Your task to perform on an android device: see creations saved in the google photos Image 0: 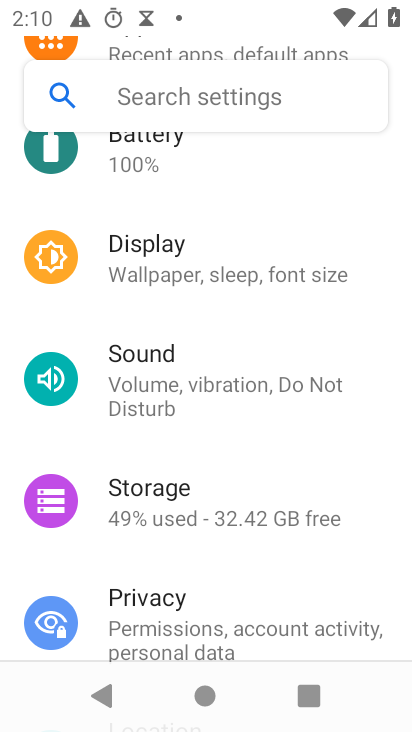
Step 0: press home button
Your task to perform on an android device: see creations saved in the google photos Image 1: 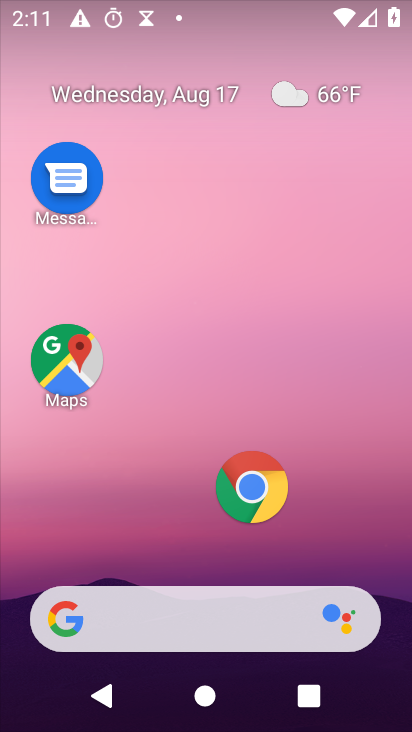
Step 1: drag from (186, 525) to (232, 0)
Your task to perform on an android device: see creations saved in the google photos Image 2: 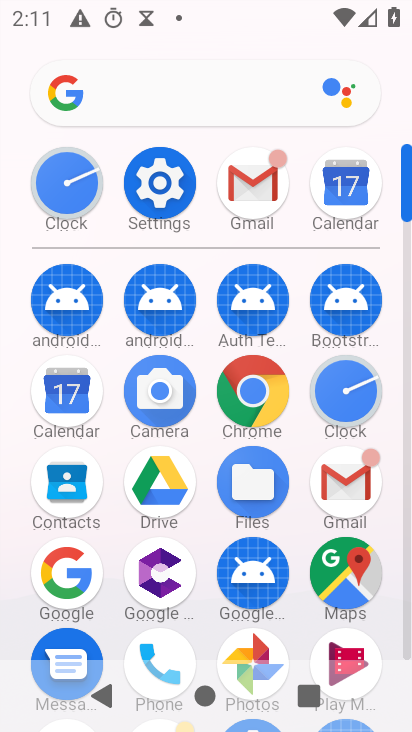
Step 2: drag from (392, 559) to (352, 40)
Your task to perform on an android device: see creations saved in the google photos Image 3: 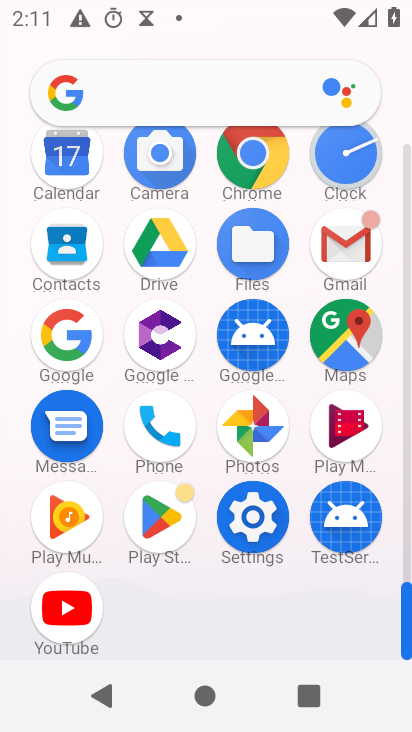
Step 3: click (251, 440)
Your task to perform on an android device: see creations saved in the google photos Image 4: 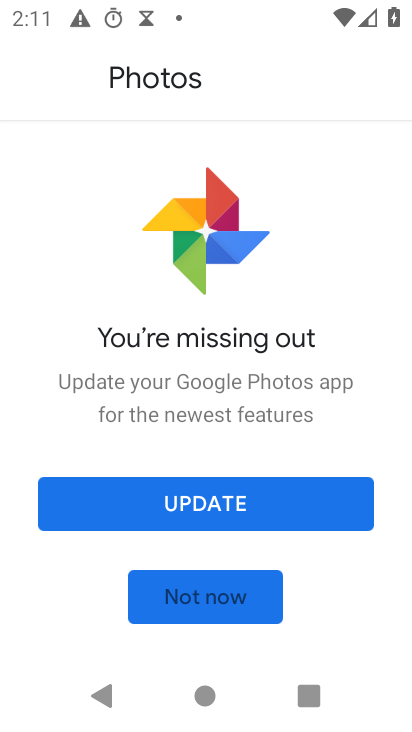
Step 4: click (203, 497)
Your task to perform on an android device: see creations saved in the google photos Image 5: 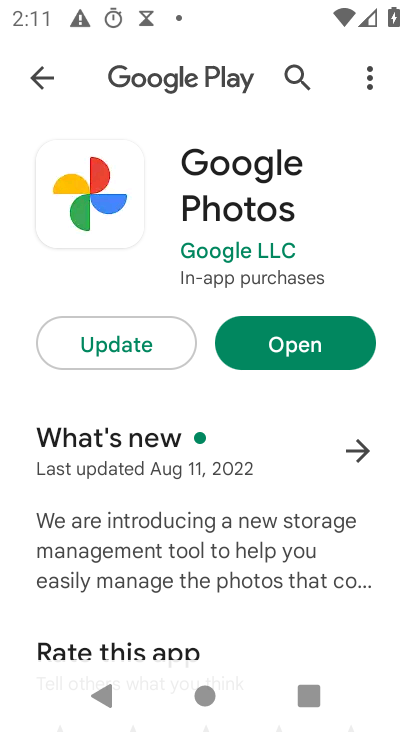
Step 5: click (145, 332)
Your task to perform on an android device: see creations saved in the google photos Image 6: 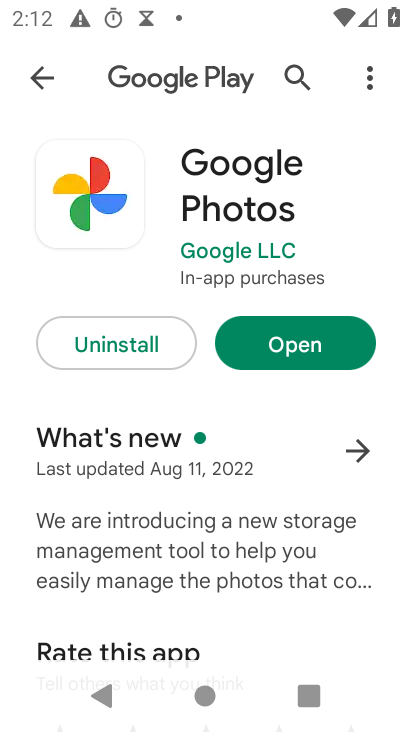
Step 6: click (256, 320)
Your task to perform on an android device: see creations saved in the google photos Image 7: 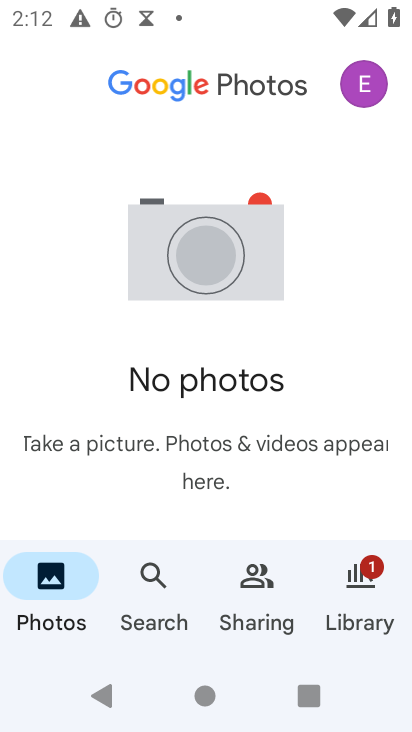
Step 7: click (149, 578)
Your task to perform on an android device: see creations saved in the google photos Image 8: 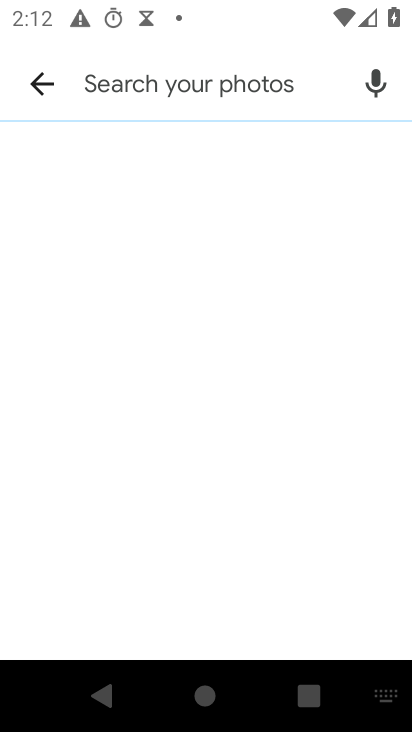
Step 8: click (209, 89)
Your task to perform on an android device: see creations saved in the google photos Image 9: 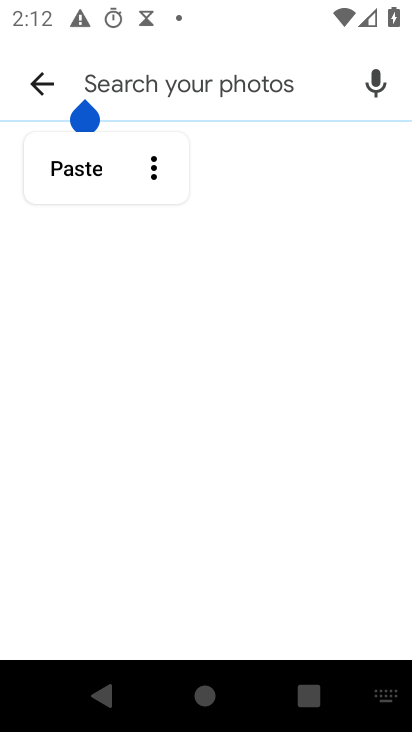
Step 9: click (234, 79)
Your task to perform on an android device: see creations saved in the google photos Image 10: 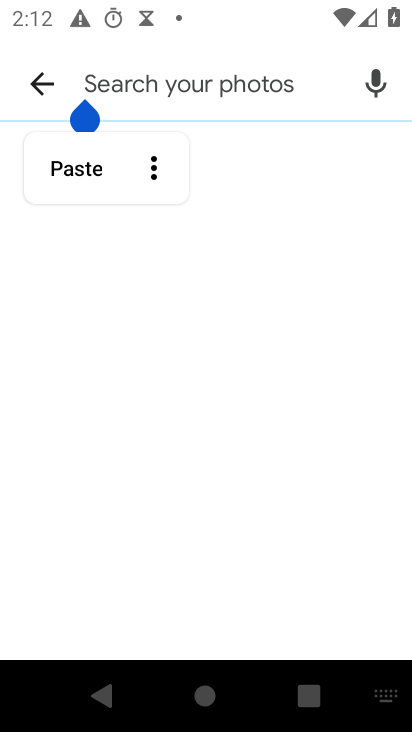
Step 10: click (234, 79)
Your task to perform on an android device: see creations saved in the google photos Image 11: 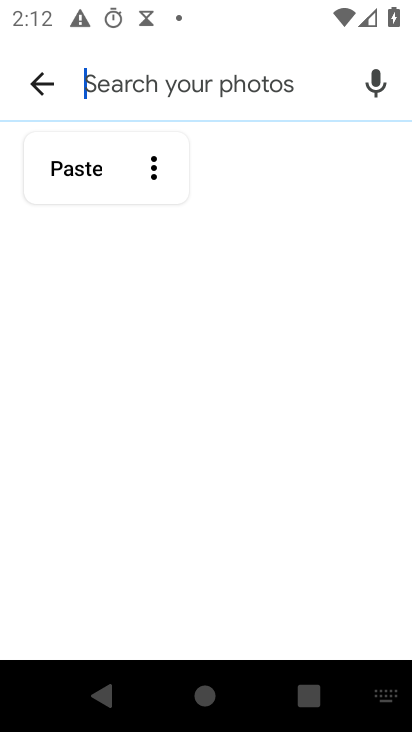
Step 11: click (234, 79)
Your task to perform on an android device: see creations saved in the google photos Image 12: 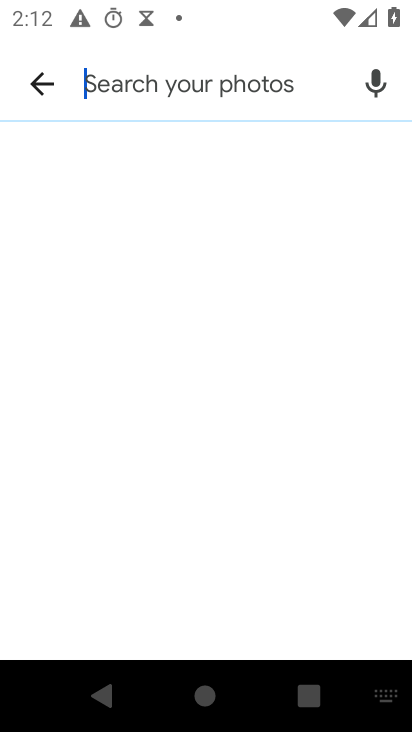
Step 12: press enter
Your task to perform on an android device: see creations saved in the google photos Image 13: 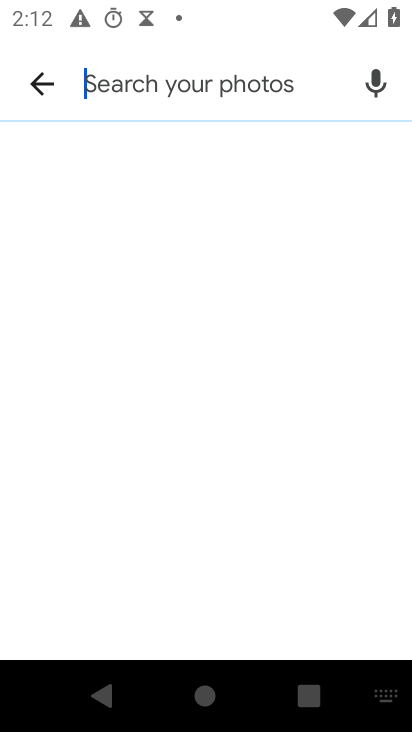
Step 13: task complete